Your task to perform on an android device: add a contact in the contacts app Image 0: 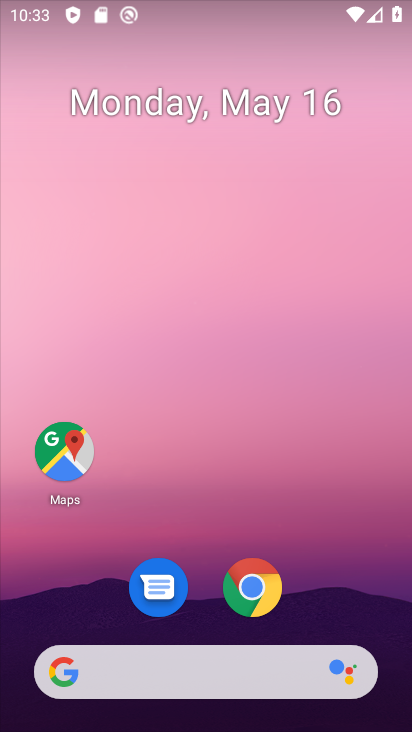
Step 0: drag from (384, 616) to (297, 124)
Your task to perform on an android device: add a contact in the contacts app Image 1: 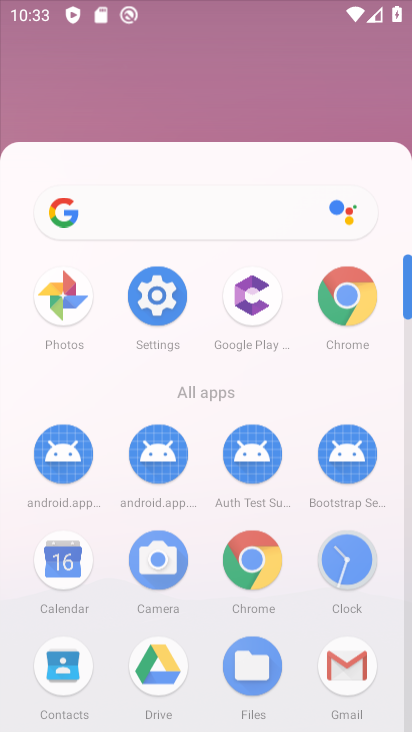
Step 1: click (297, 124)
Your task to perform on an android device: add a contact in the contacts app Image 2: 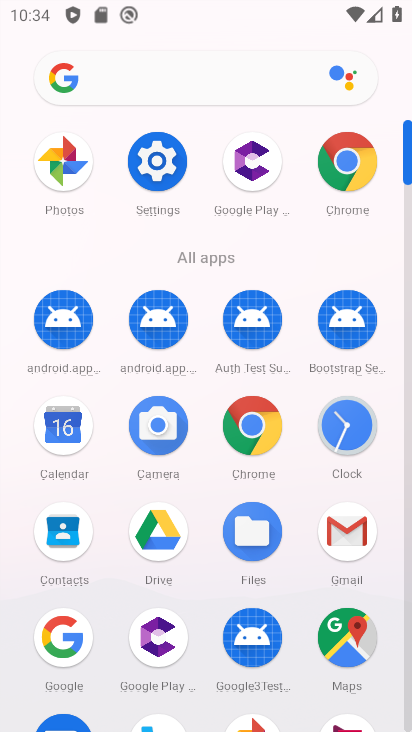
Step 2: click (71, 536)
Your task to perform on an android device: add a contact in the contacts app Image 3: 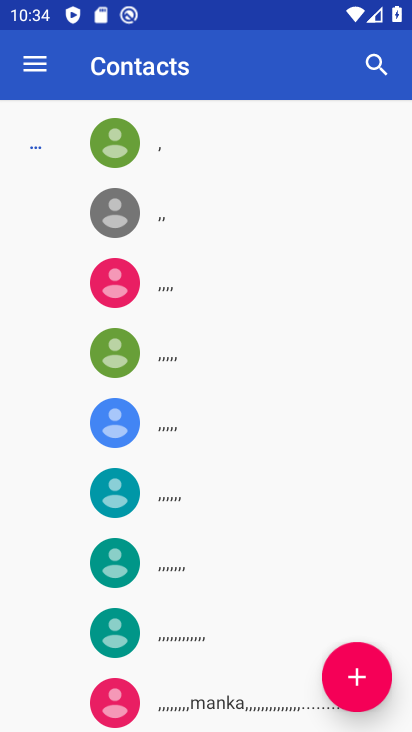
Step 3: click (359, 698)
Your task to perform on an android device: add a contact in the contacts app Image 4: 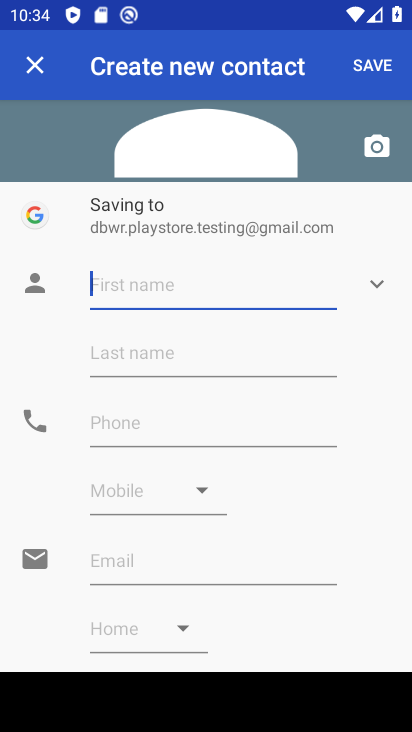
Step 4: type "meenu"
Your task to perform on an android device: add a contact in the contacts app Image 5: 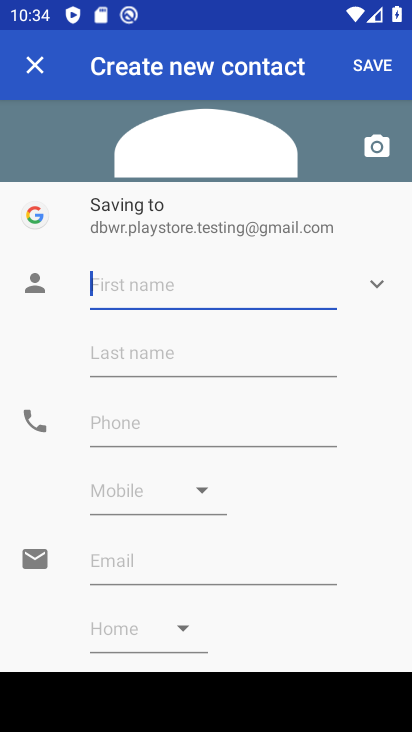
Step 5: click (380, 74)
Your task to perform on an android device: add a contact in the contacts app Image 6: 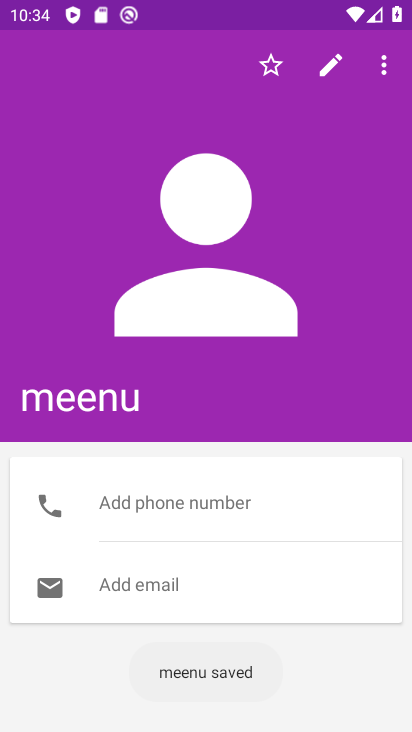
Step 6: task complete